Your task to perform on an android device: Do I have any events today? Image 0: 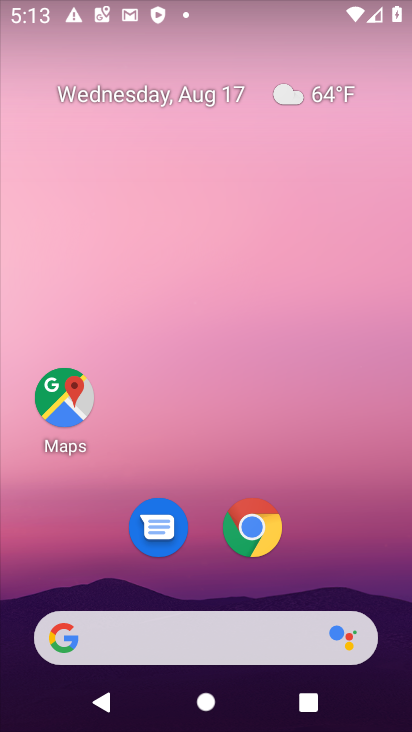
Step 0: drag from (144, 471) to (139, 186)
Your task to perform on an android device: Do I have any events today? Image 1: 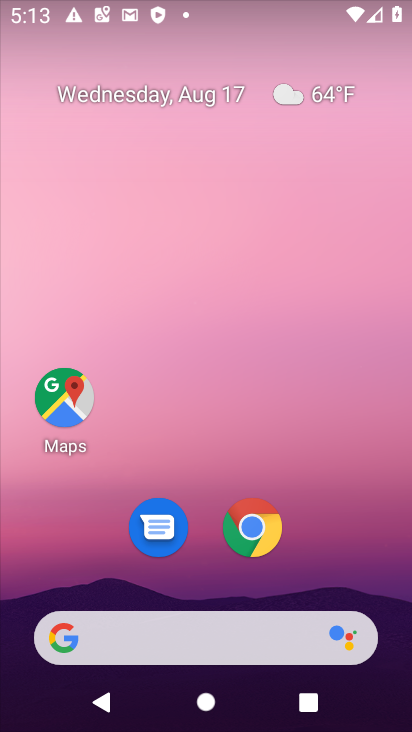
Step 1: drag from (212, 537) to (197, 218)
Your task to perform on an android device: Do I have any events today? Image 2: 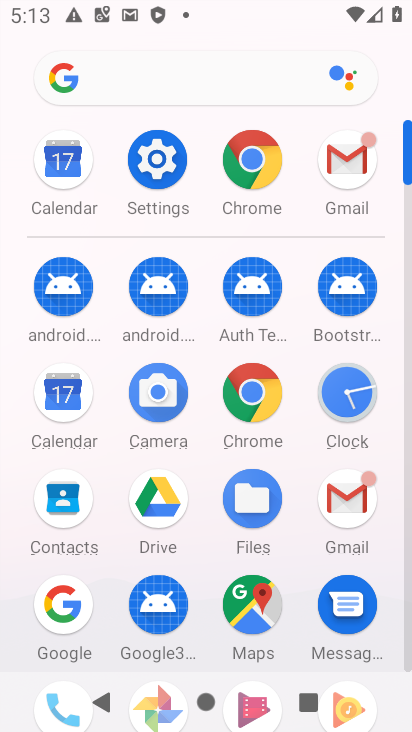
Step 2: click (63, 163)
Your task to perform on an android device: Do I have any events today? Image 3: 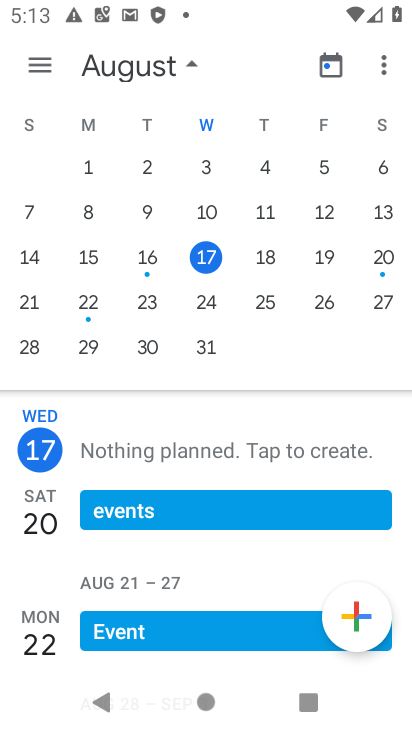
Step 3: click (200, 262)
Your task to perform on an android device: Do I have any events today? Image 4: 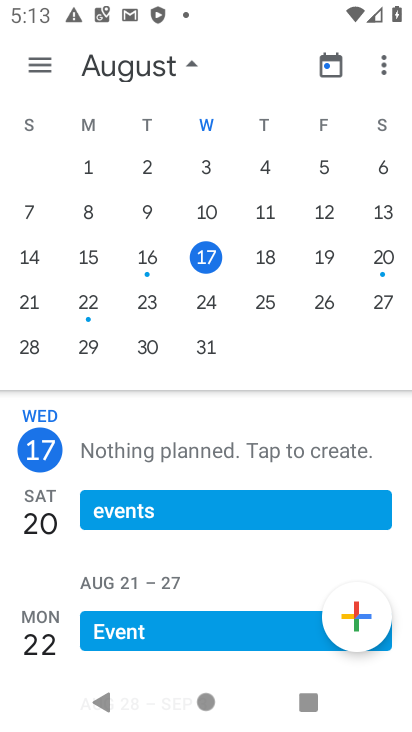
Step 4: task complete